Your task to perform on an android device: remove spam from my inbox in the gmail app Image 0: 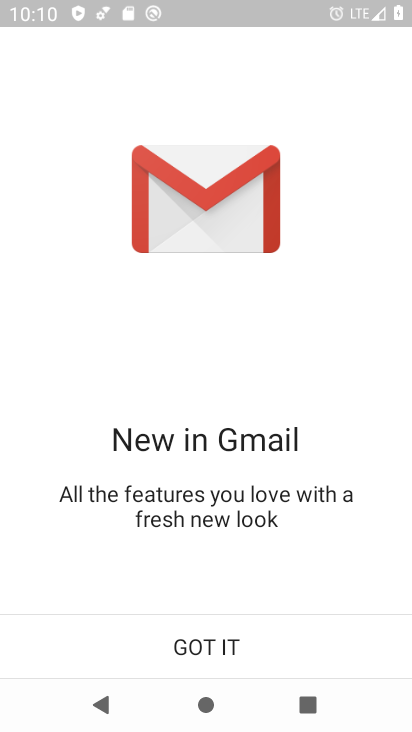
Step 0: press home button
Your task to perform on an android device: remove spam from my inbox in the gmail app Image 1: 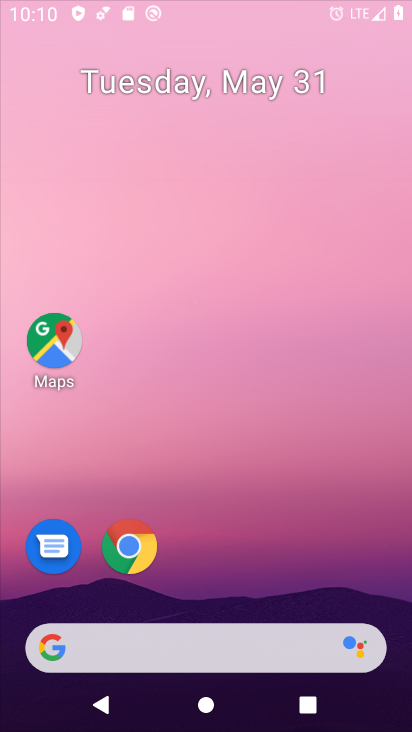
Step 1: drag from (309, 432) to (359, 84)
Your task to perform on an android device: remove spam from my inbox in the gmail app Image 2: 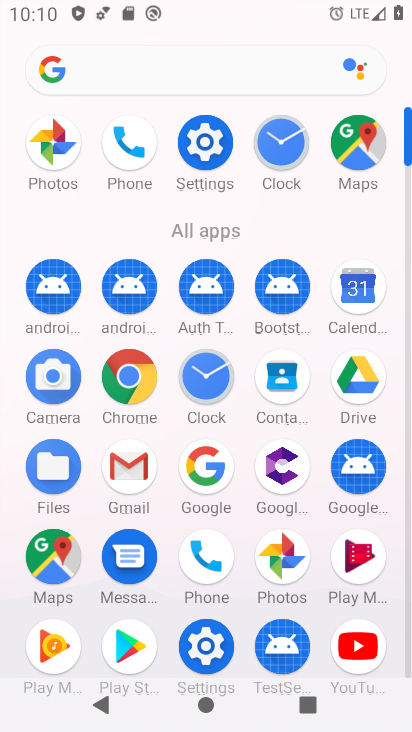
Step 2: click (112, 479)
Your task to perform on an android device: remove spam from my inbox in the gmail app Image 3: 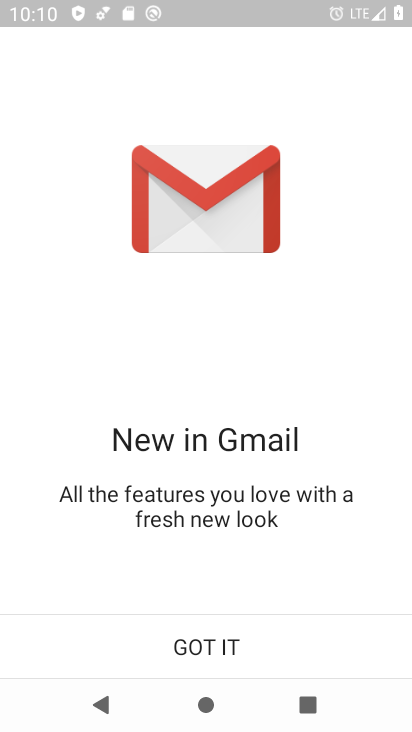
Step 3: click (279, 660)
Your task to perform on an android device: remove spam from my inbox in the gmail app Image 4: 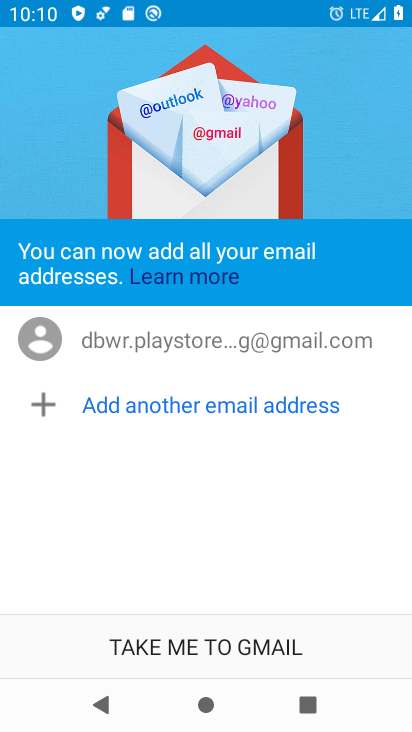
Step 4: click (267, 642)
Your task to perform on an android device: remove spam from my inbox in the gmail app Image 5: 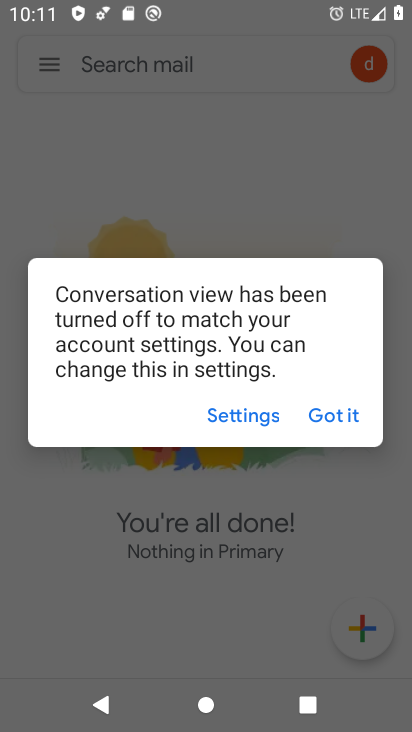
Step 5: click (304, 418)
Your task to perform on an android device: remove spam from my inbox in the gmail app Image 6: 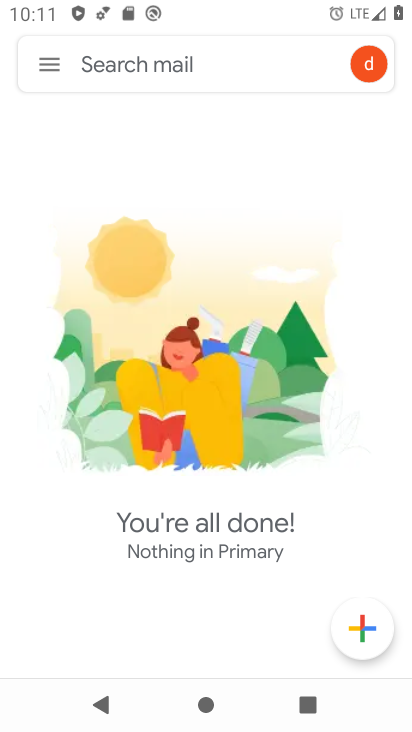
Step 6: click (47, 59)
Your task to perform on an android device: remove spam from my inbox in the gmail app Image 7: 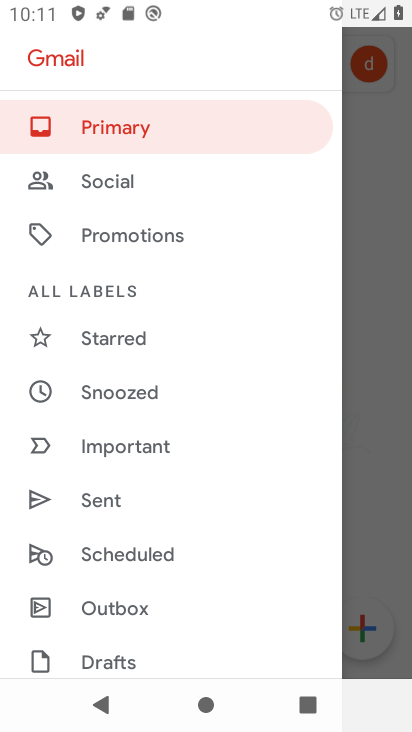
Step 7: drag from (277, 664) to (229, 297)
Your task to perform on an android device: remove spam from my inbox in the gmail app Image 8: 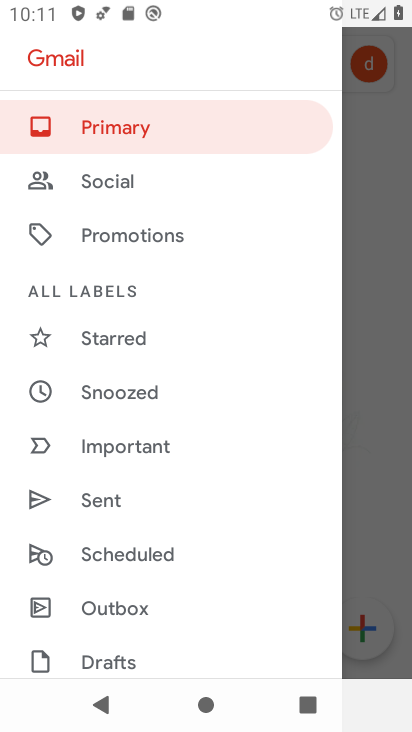
Step 8: click (210, 532)
Your task to perform on an android device: remove spam from my inbox in the gmail app Image 9: 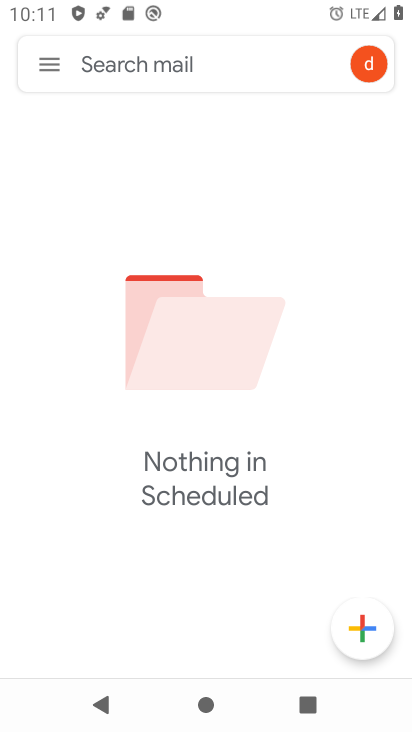
Step 9: press back button
Your task to perform on an android device: remove spam from my inbox in the gmail app Image 10: 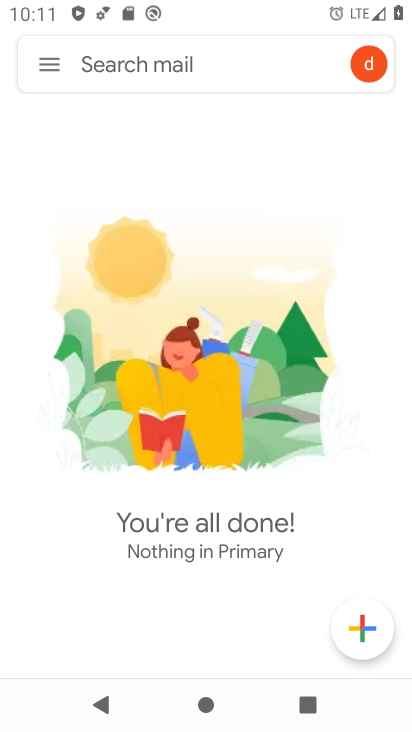
Step 10: click (41, 65)
Your task to perform on an android device: remove spam from my inbox in the gmail app Image 11: 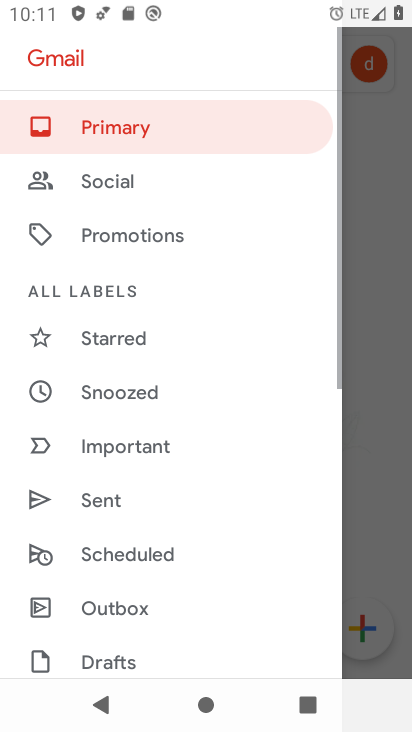
Step 11: click (133, 528)
Your task to perform on an android device: remove spam from my inbox in the gmail app Image 12: 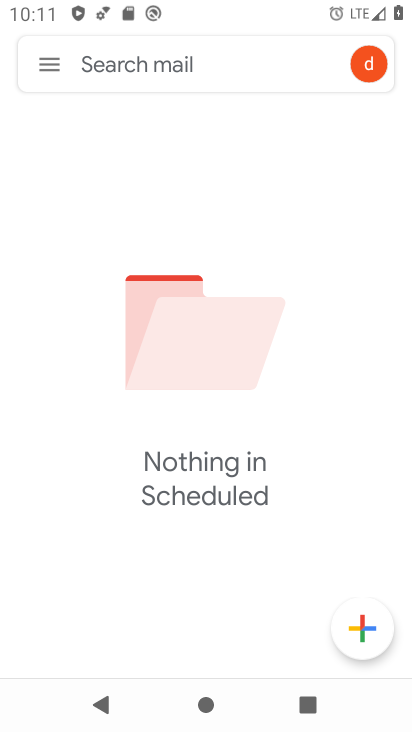
Step 12: press home button
Your task to perform on an android device: remove spam from my inbox in the gmail app Image 13: 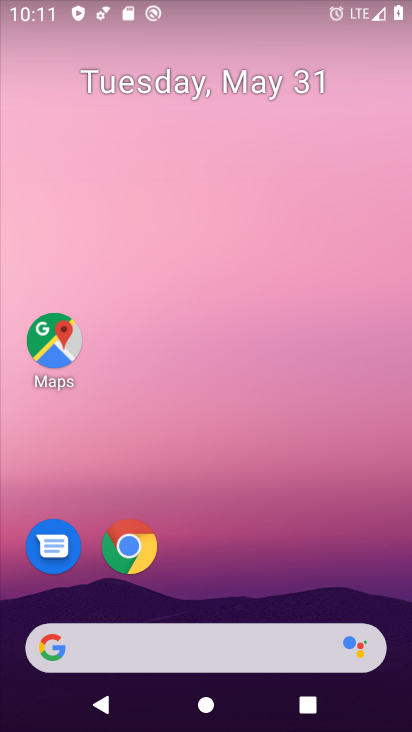
Step 13: drag from (246, 655) to (232, 227)
Your task to perform on an android device: remove spam from my inbox in the gmail app Image 14: 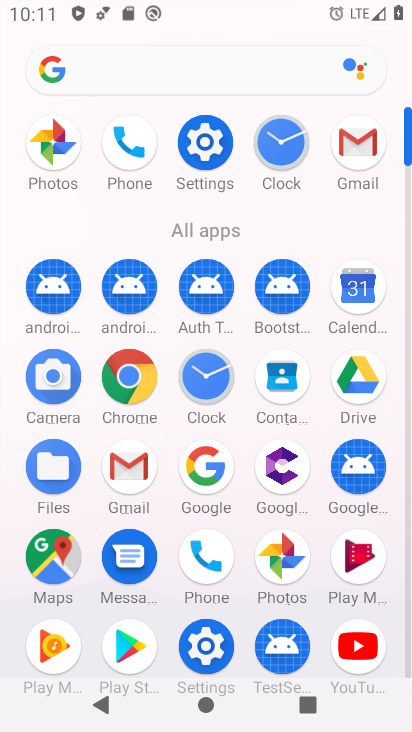
Step 14: click (326, 557)
Your task to perform on an android device: remove spam from my inbox in the gmail app Image 15: 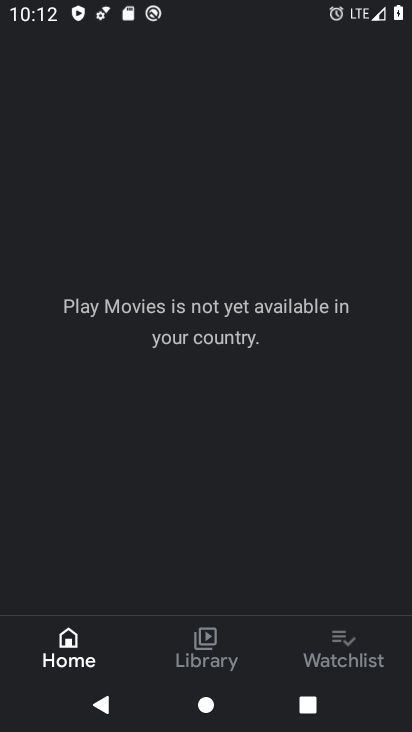
Step 15: click (259, 530)
Your task to perform on an android device: remove spam from my inbox in the gmail app Image 16: 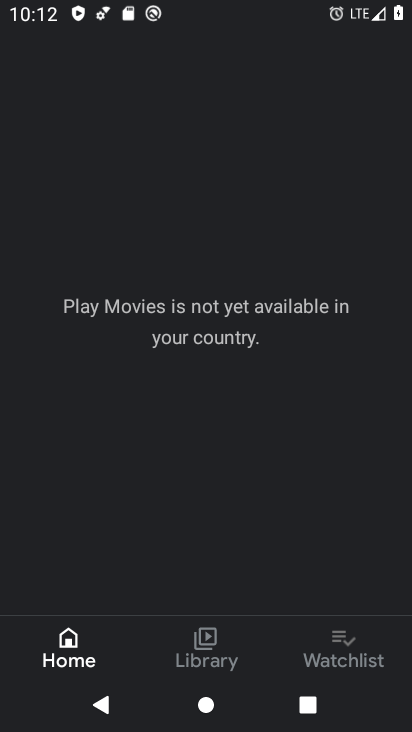
Step 16: drag from (266, 526) to (267, 316)
Your task to perform on an android device: remove spam from my inbox in the gmail app Image 17: 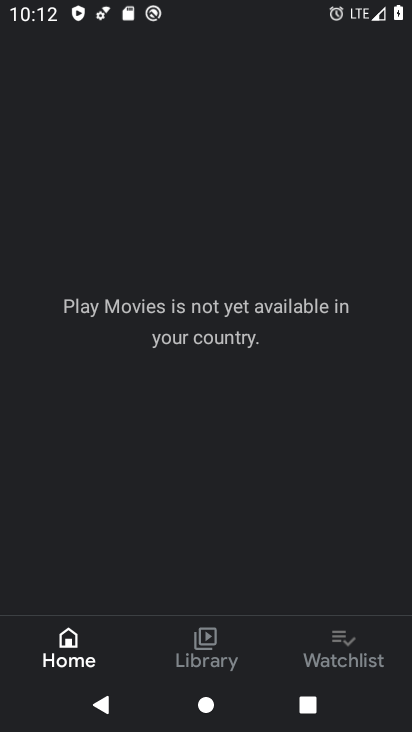
Step 17: press home button
Your task to perform on an android device: remove spam from my inbox in the gmail app Image 18: 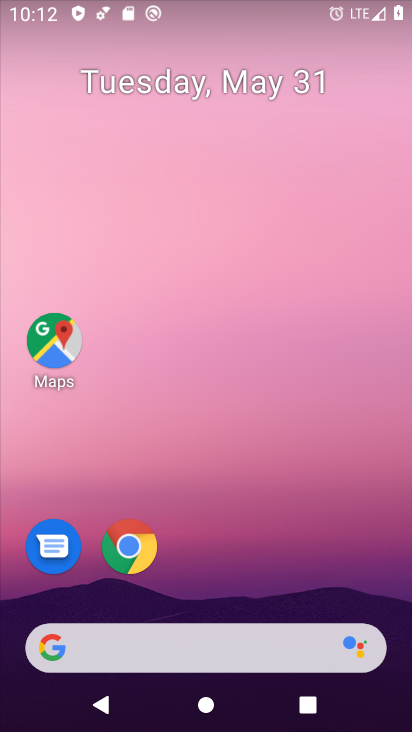
Step 18: drag from (170, 364) to (276, 1)
Your task to perform on an android device: remove spam from my inbox in the gmail app Image 19: 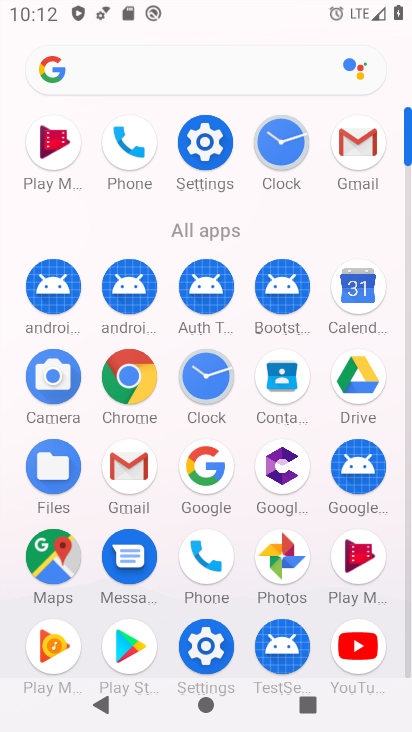
Step 19: click (122, 458)
Your task to perform on an android device: remove spam from my inbox in the gmail app Image 20: 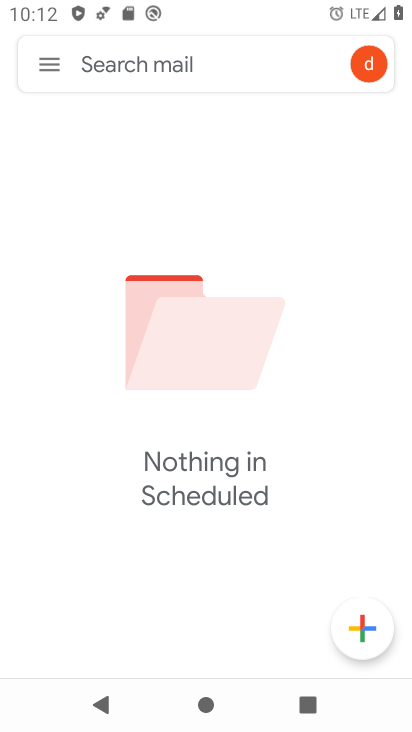
Step 20: click (55, 63)
Your task to perform on an android device: remove spam from my inbox in the gmail app Image 21: 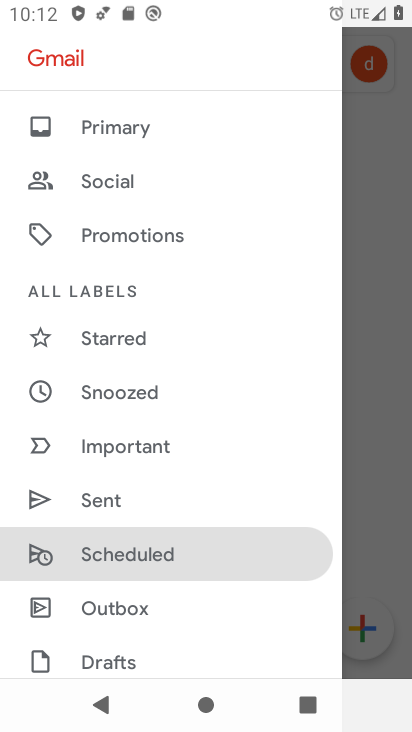
Step 21: drag from (93, 607) to (105, 347)
Your task to perform on an android device: remove spam from my inbox in the gmail app Image 22: 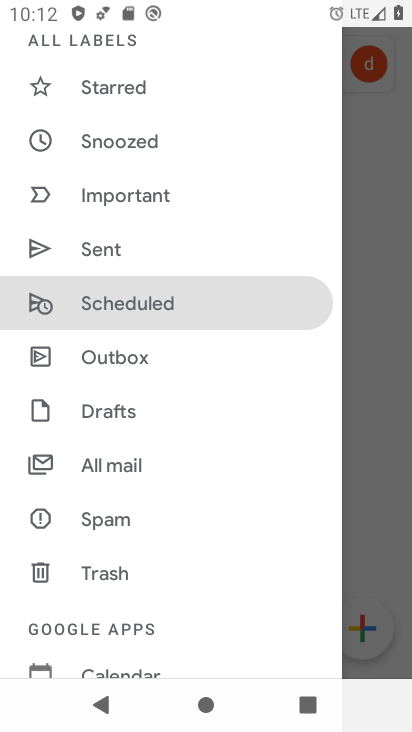
Step 22: click (105, 528)
Your task to perform on an android device: remove spam from my inbox in the gmail app Image 23: 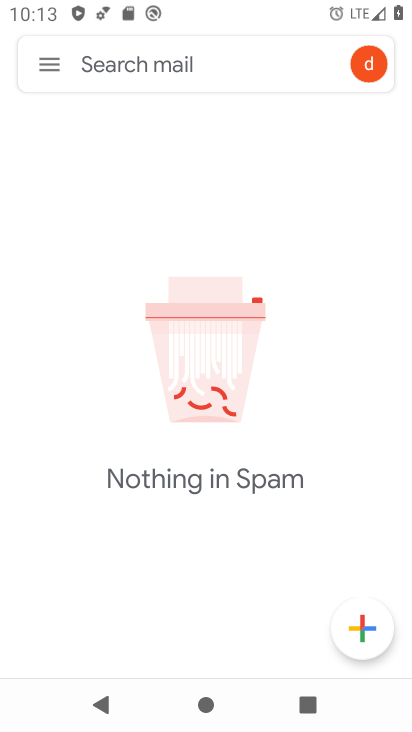
Step 23: task complete